Your task to perform on an android device: Go to sound settings Image 0: 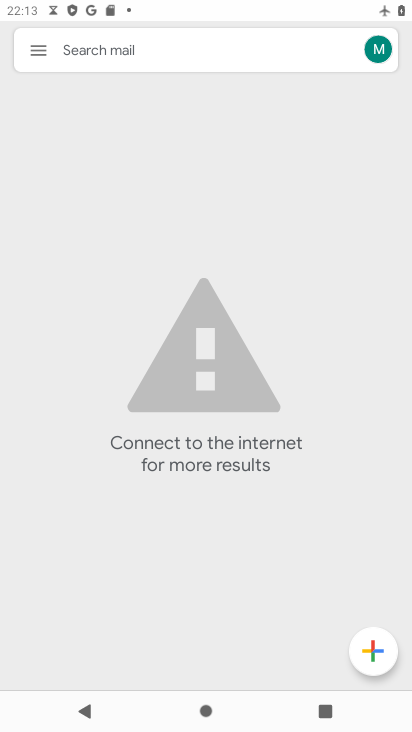
Step 0: press home button
Your task to perform on an android device: Go to sound settings Image 1: 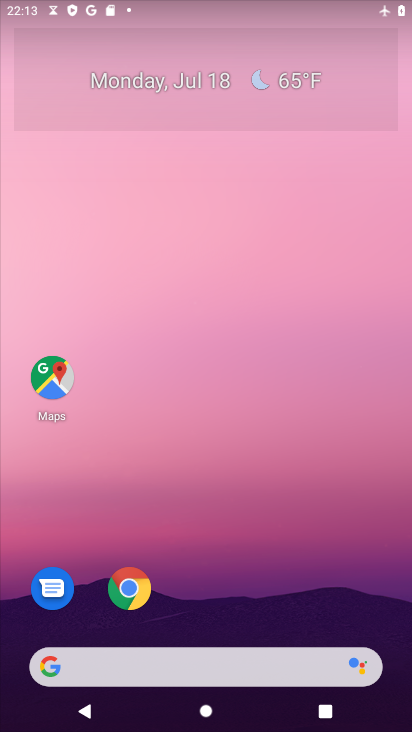
Step 1: drag from (193, 668) to (297, 27)
Your task to perform on an android device: Go to sound settings Image 2: 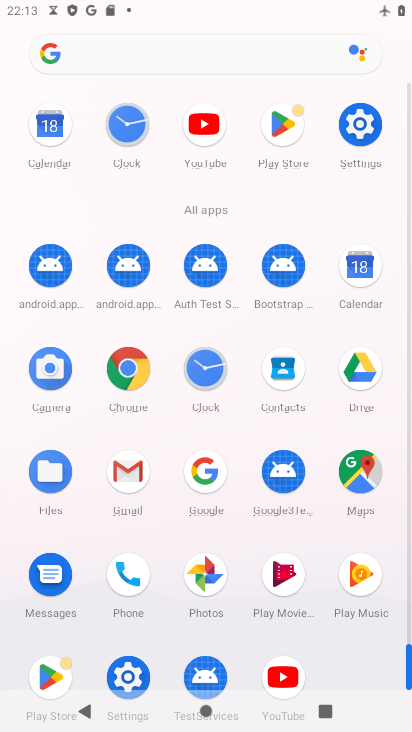
Step 2: click (358, 125)
Your task to perform on an android device: Go to sound settings Image 3: 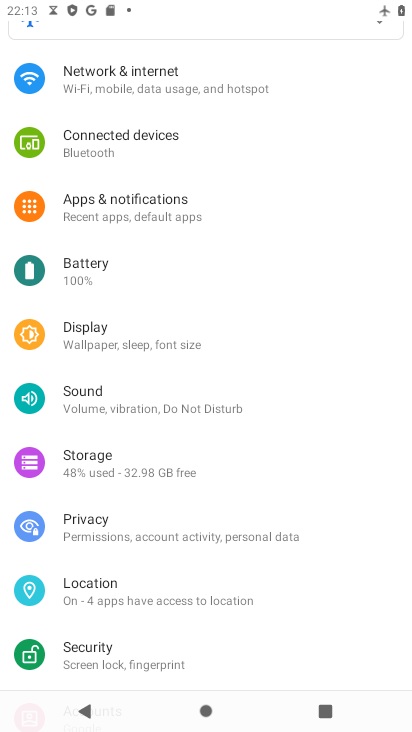
Step 3: click (164, 405)
Your task to perform on an android device: Go to sound settings Image 4: 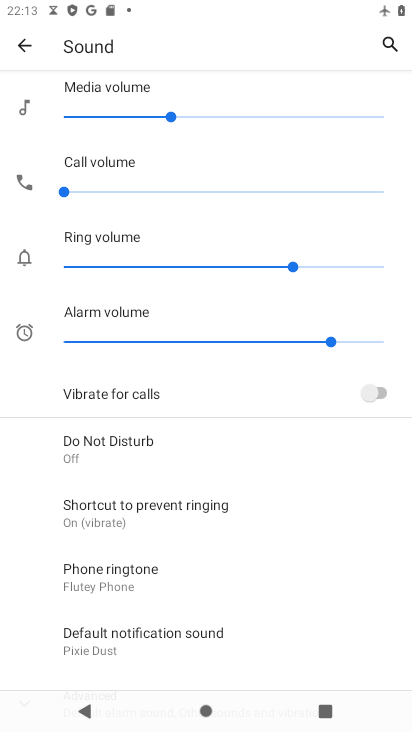
Step 4: task complete